Your task to perform on an android device: Open notification settings Image 0: 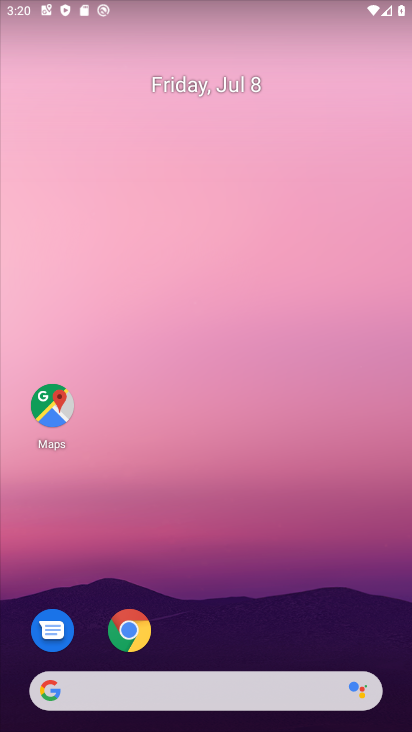
Step 0: drag from (303, 628) to (209, 105)
Your task to perform on an android device: Open notification settings Image 1: 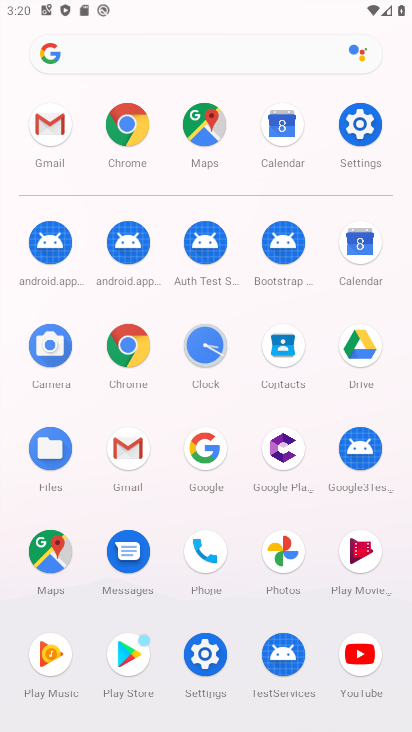
Step 1: click (382, 145)
Your task to perform on an android device: Open notification settings Image 2: 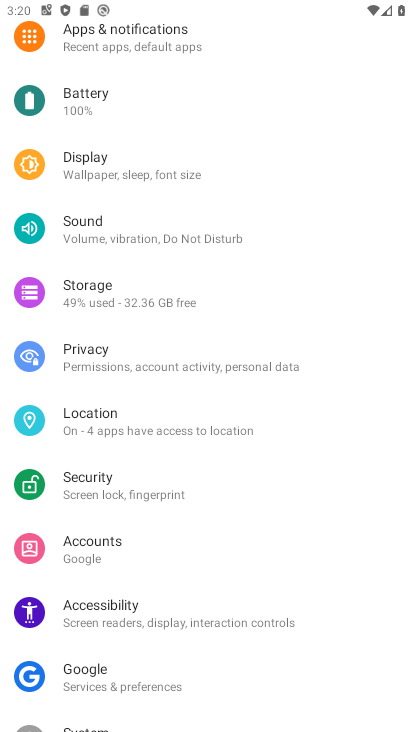
Step 2: click (211, 51)
Your task to perform on an android device: Open notification settings Image 3: 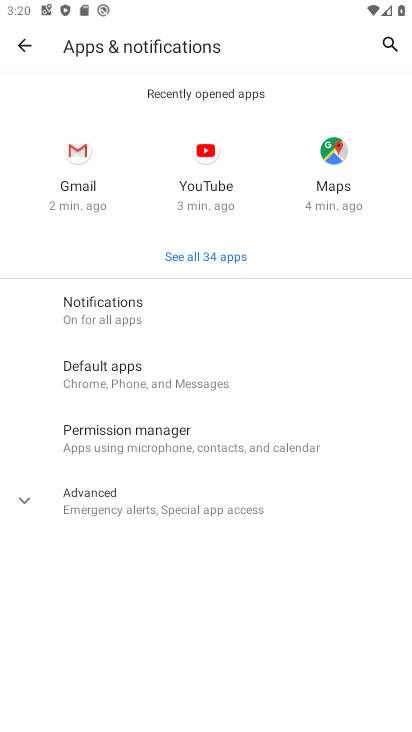
Step 3: task complete